Your task to perform on an android device: Go to ESPN.com Image 0: 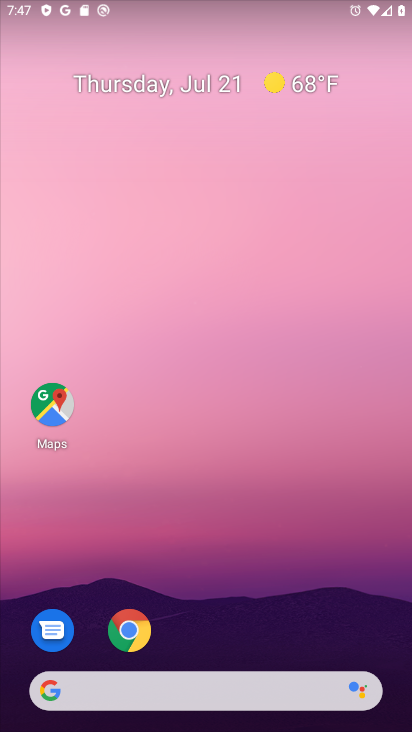
Step 0: drag from (254, 529) to (166, 16)
Your task to perform on an android device: Go to ESPN.com Image 1: 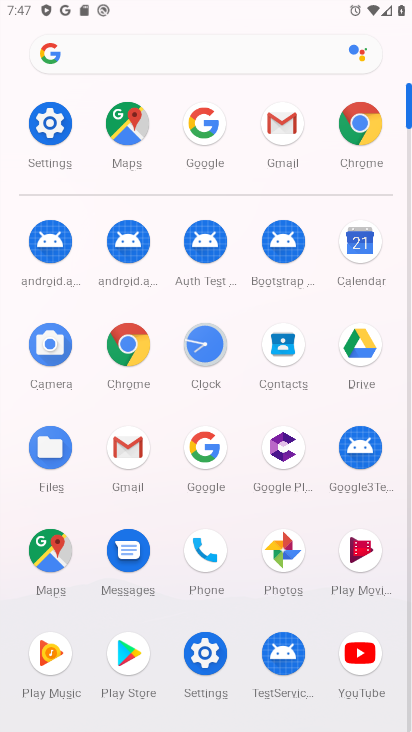
Step 1: click (360, 125)
Your task to perform on an android device: Go to ESPN.com Image 2: 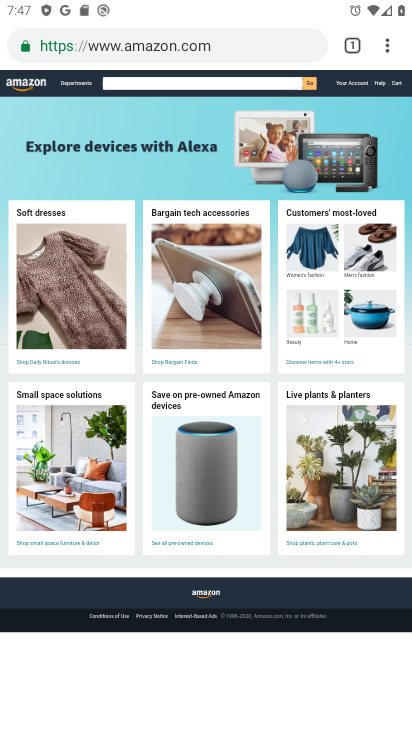
Step 2: click (254, 50)
Your task to perform on an android device: Go to ESPN.com Image 3: 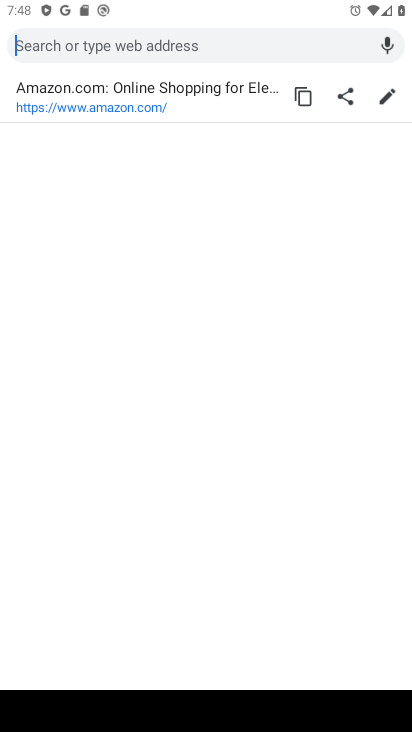
Step 3: type "ESPN.com"
Your task to perform on an android device: Go to ESPN.com Image 4: 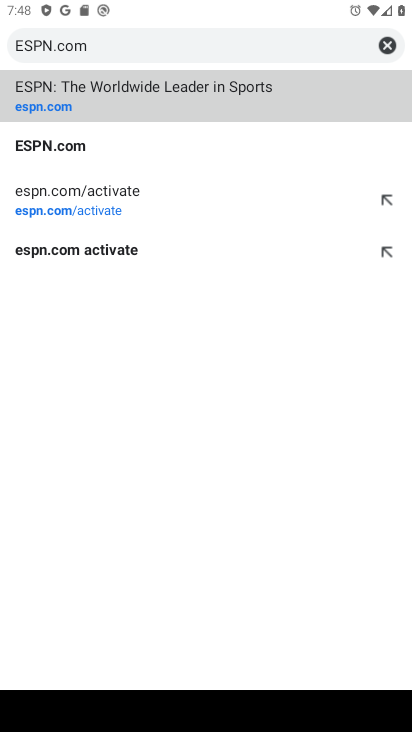
Step 4: click (28, 141)
Your task to perform on an android device: Go to ESPN.com Image 5: 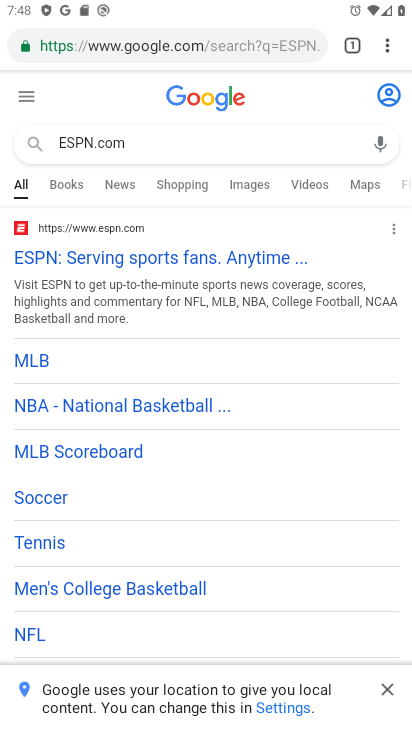
Step 5: click (174, 248)
Your task to perform on an android device: Go to ESPN.com Image 6: 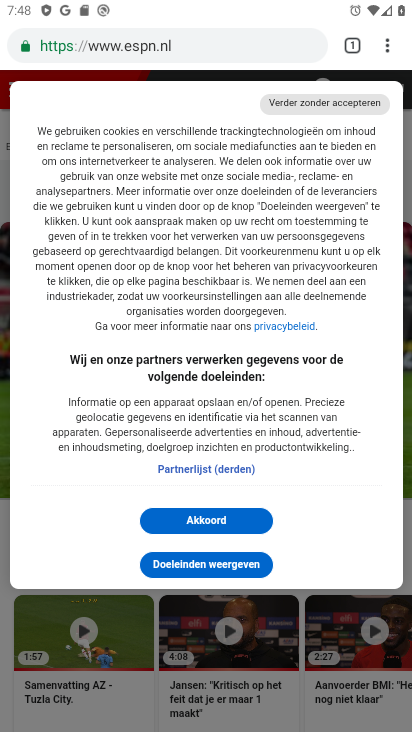
Step 6: task complete